Your task to perform on an android device: Open privacy settings Image 0: 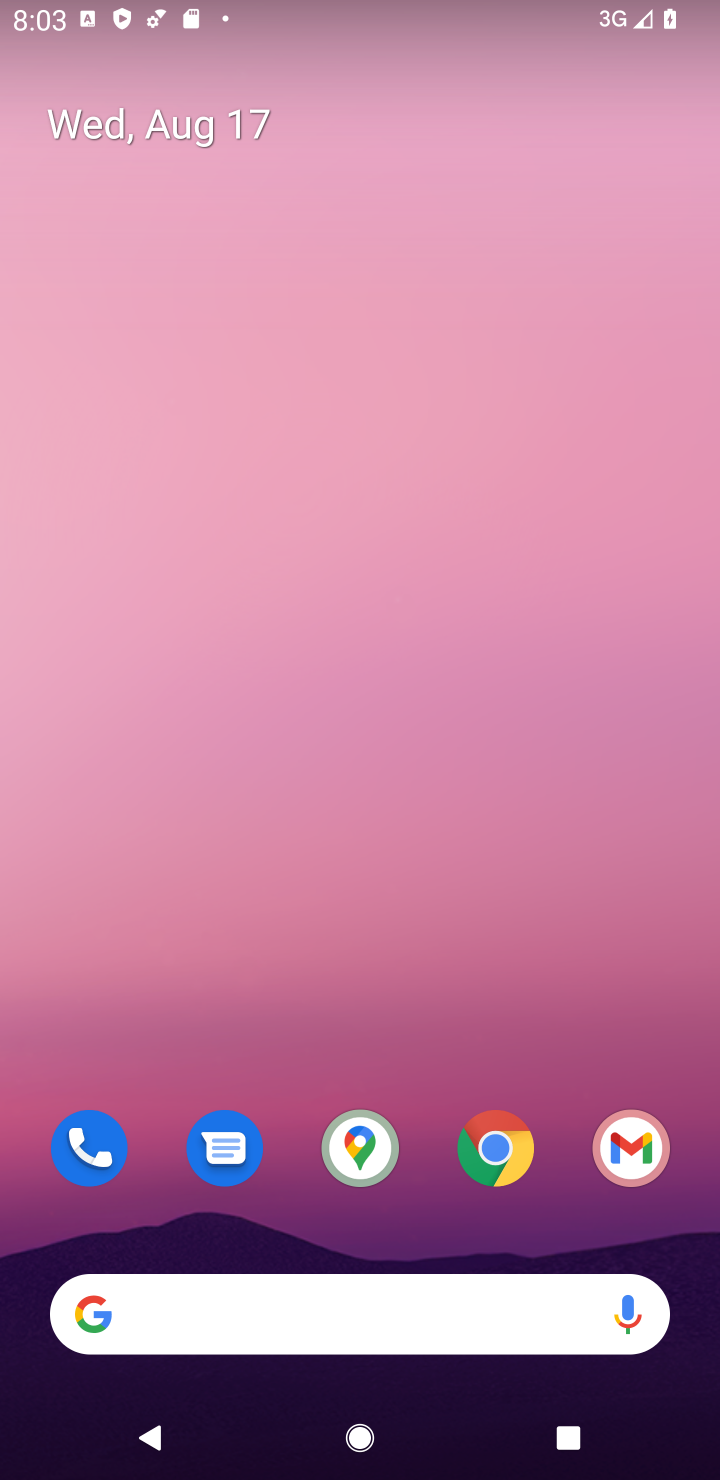
Step 0: drag from (558, 1227) to (537, 204)
Your task to perform on an android device: Open privacy settings Image 1: 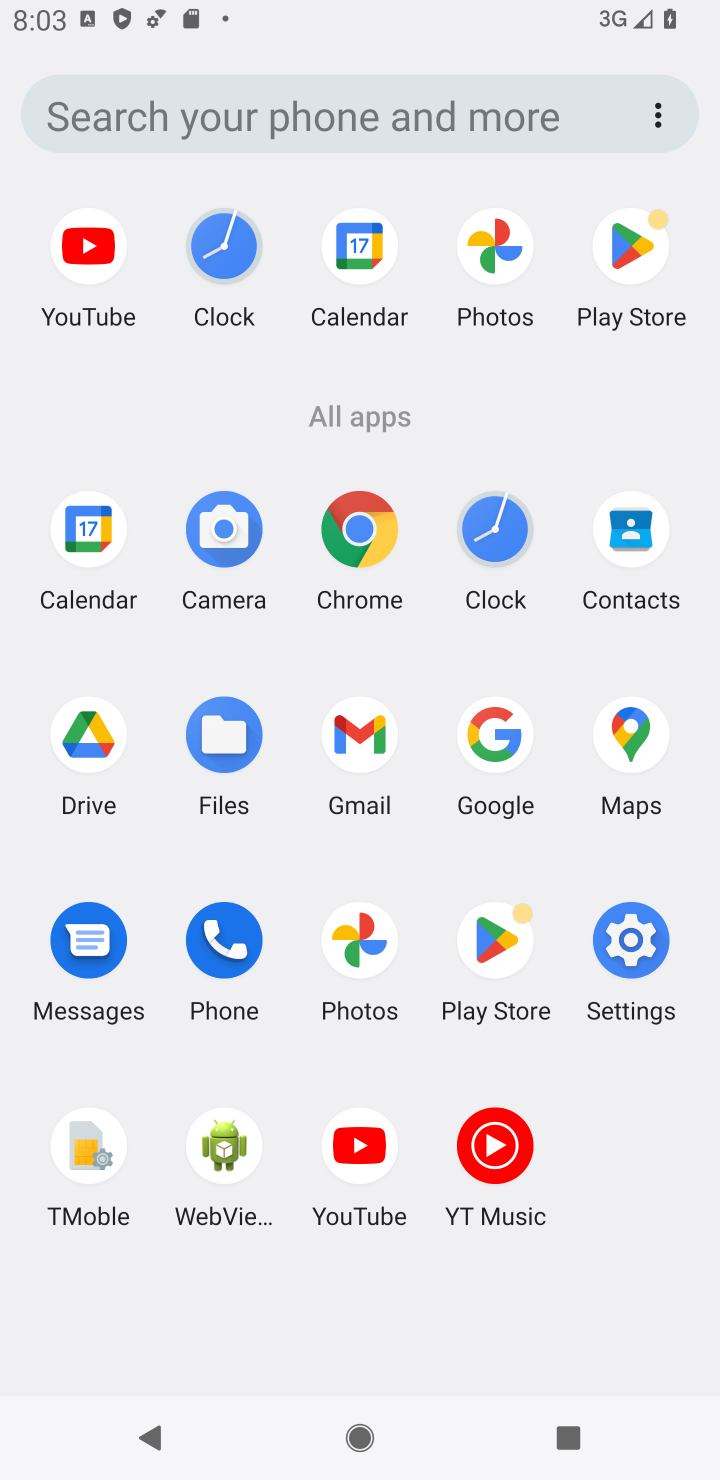
Step 1: click (636, 942)
Your task to perform on an android device: Open privacy settings Image 2: 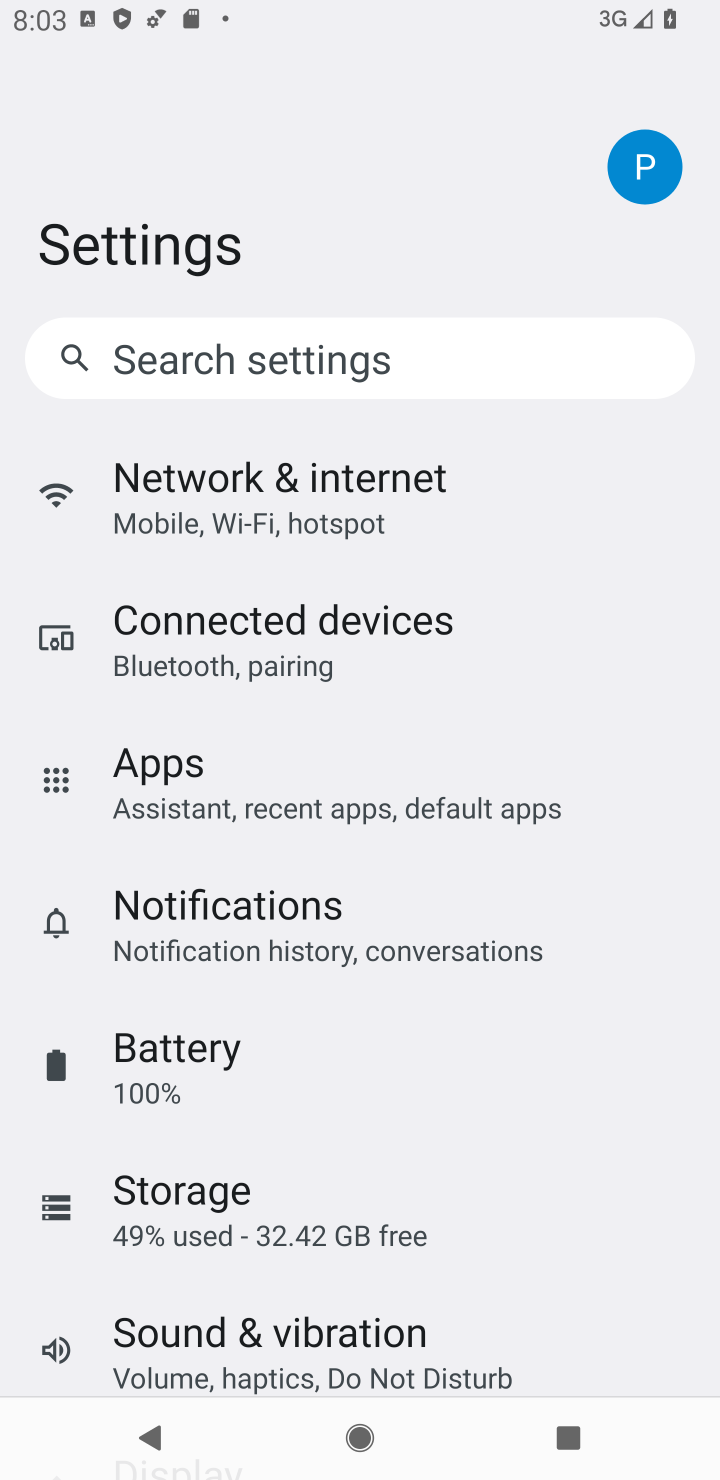
Step 2: drag from (601, 1116) to (619, 652)
Your task to perform on an android device: Open privacy settings Image 3: 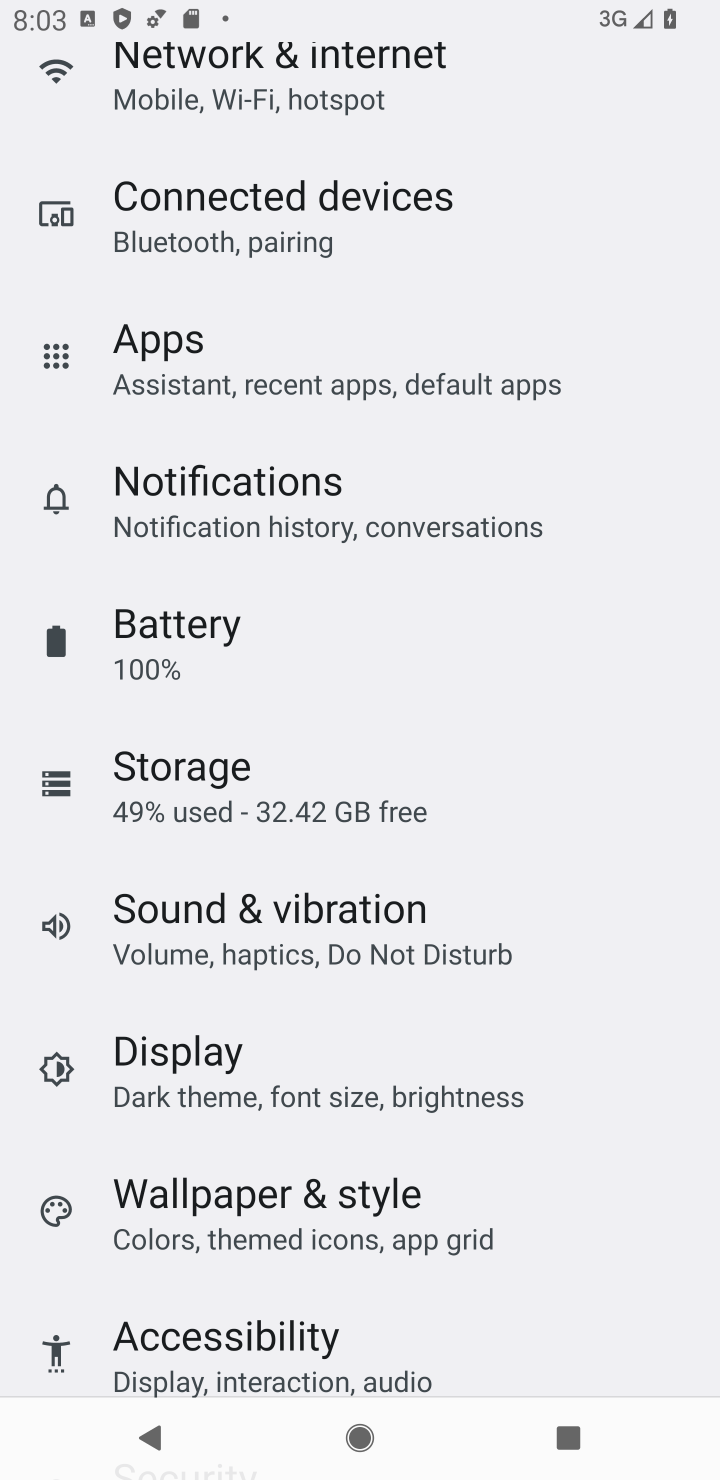
Step 3: drag from (572, 1142) to (596, 445)
Your task to perform on an android device: Open privacy settings Image 4: 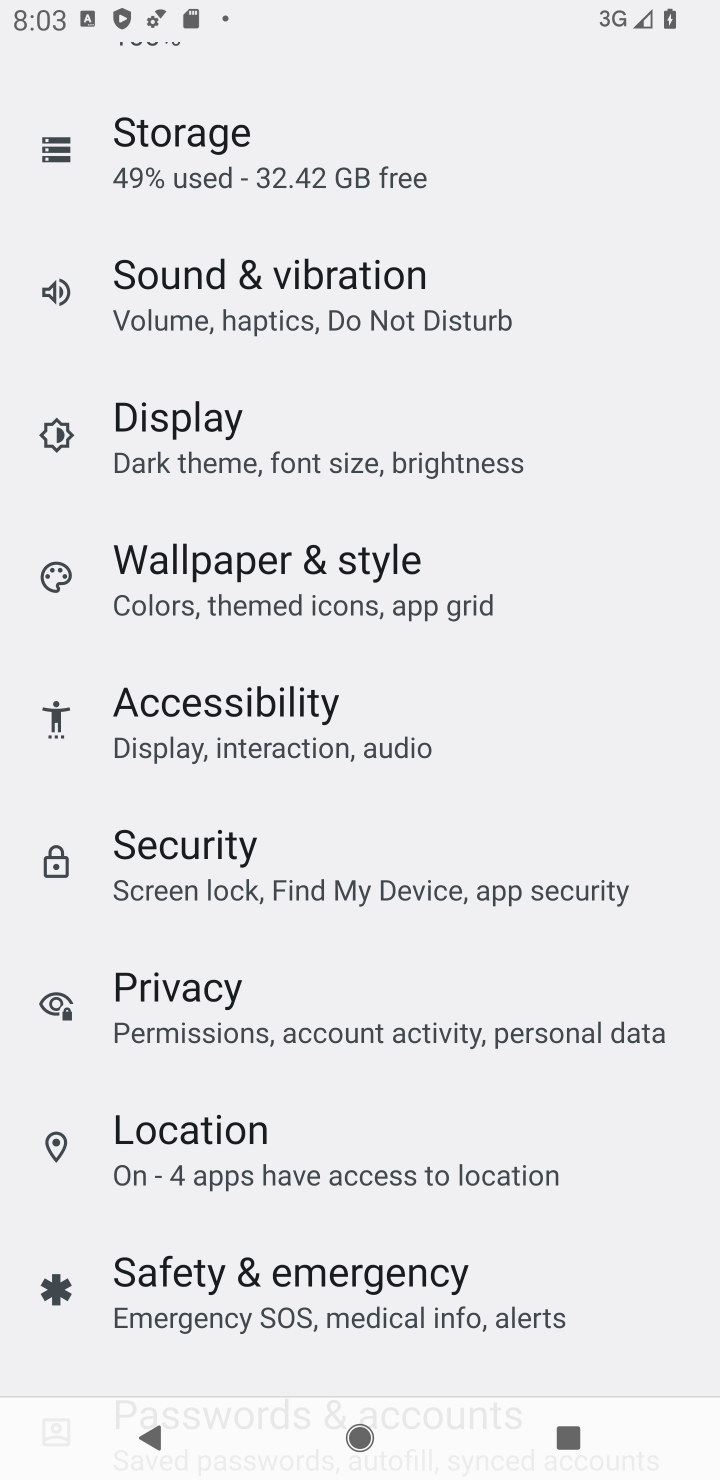
Step 4: click (188, 1012)
Your task to perform on an android device: Open privacy settings Image 5: 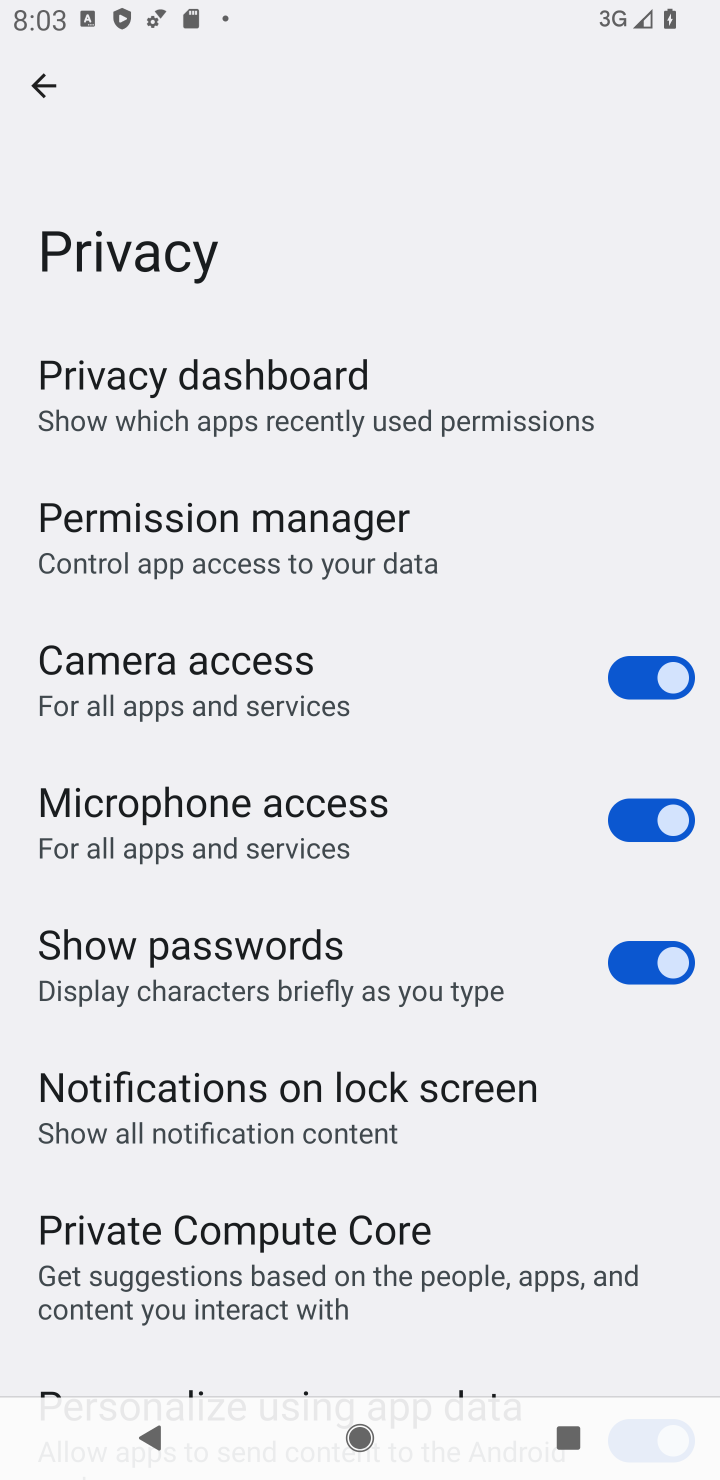
Step 5: task complete